Your task to perform on an android device: turn off location history Image 0: 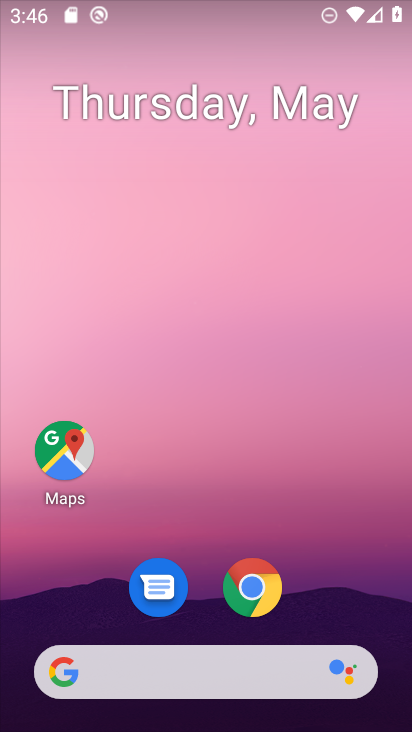
Step 0: drag from (366, 610) to (343, 265)
Your task to perform on an android device: turn off location history Image 1: 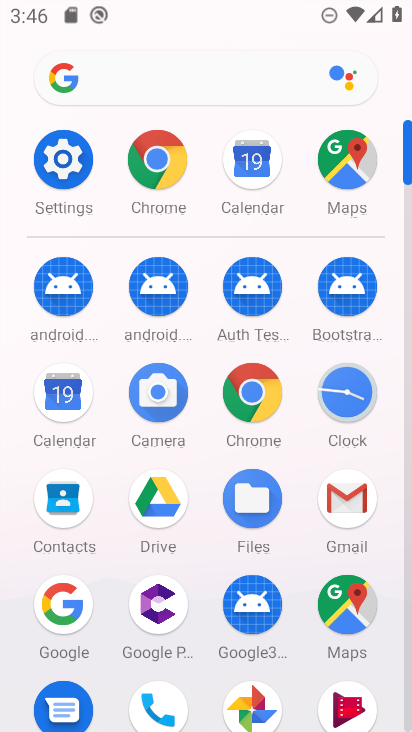
Step 1: click (77, 192)
Your task to perform on an android device: turn off location history Image 2: 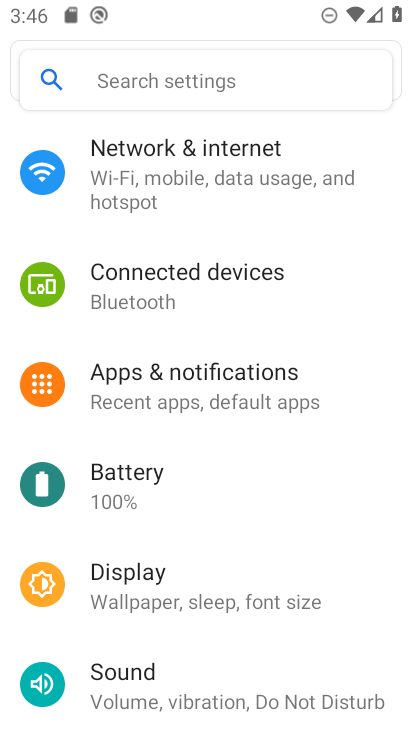
Step 2: drag from (345, 364) to (347, 472)
Your task to perform on an android device: turn off location history Image 3: 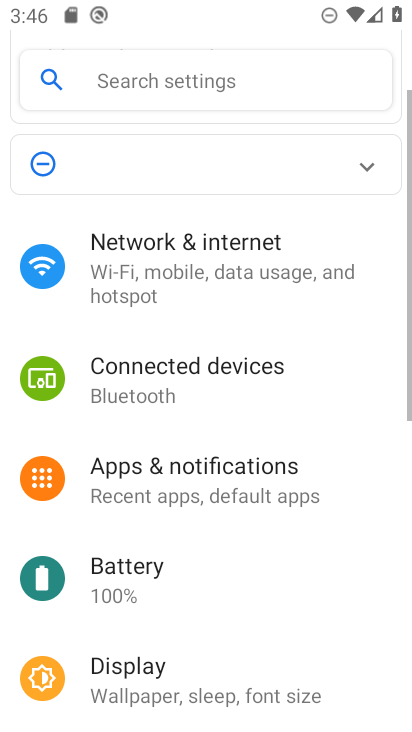
Step 3: drag from (362, 537) to (363, 441)
Your task to perform on an android device: turn off location history Image 4: 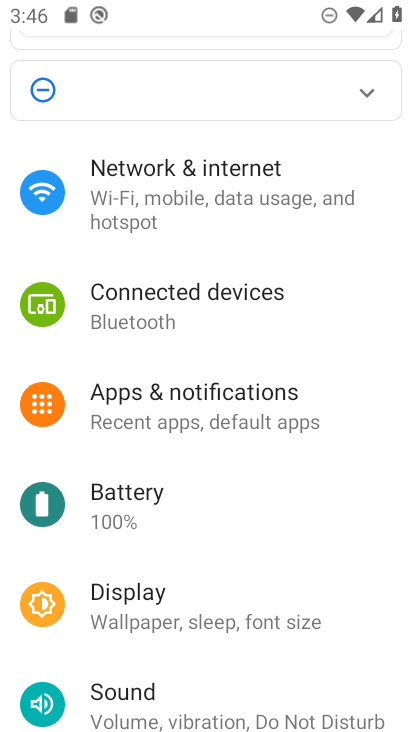
Step 4: drag from (362, 561) to (363, 483)
Your task to perform on an android device: turn off location history Image 5: 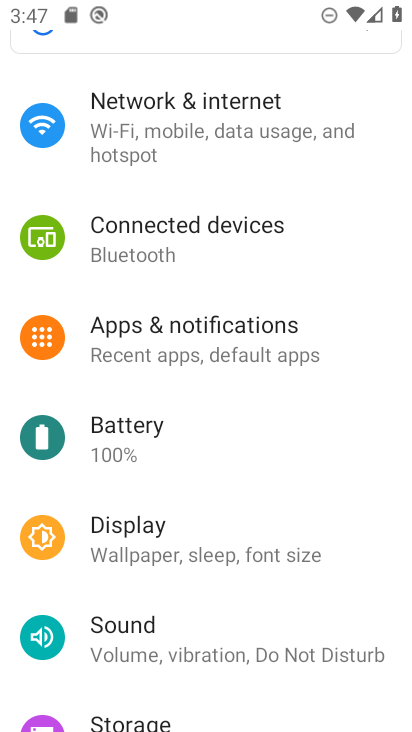
Step 5: drag from (364, 606) to (368, 517)
Your task to perform on an android device: turn off location history Image 6: 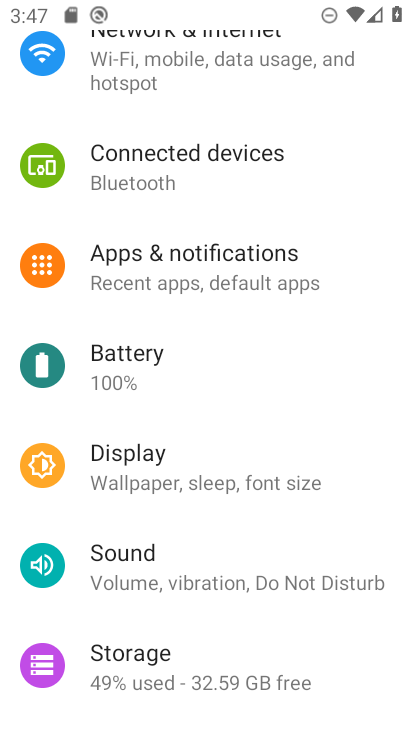
Step 6: drag from (350, 627) to (345, 523)
Your task to perform on an android device: turn off location history Image 7: 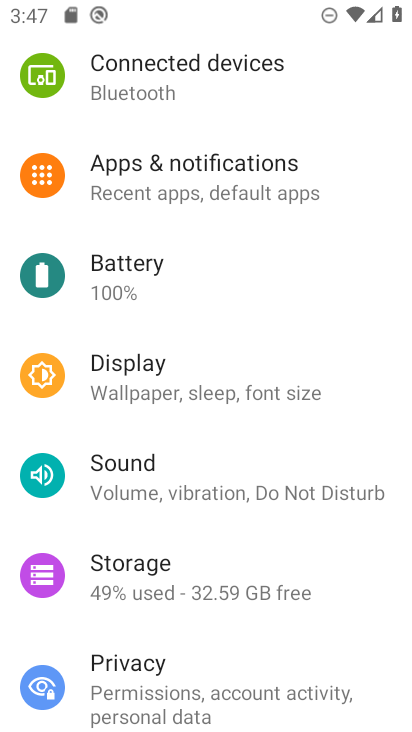
Step 7: drag from (367, 650) to (347, 548)
Your task to perform on an android device: turn off location history Image 8: 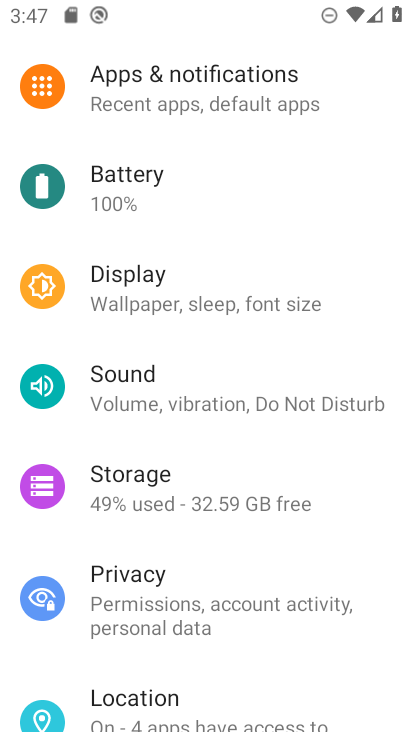
Step 8: drag from (360, 657) to (349, 549)
Your task to perform on an android device: turn off location history Image 9: 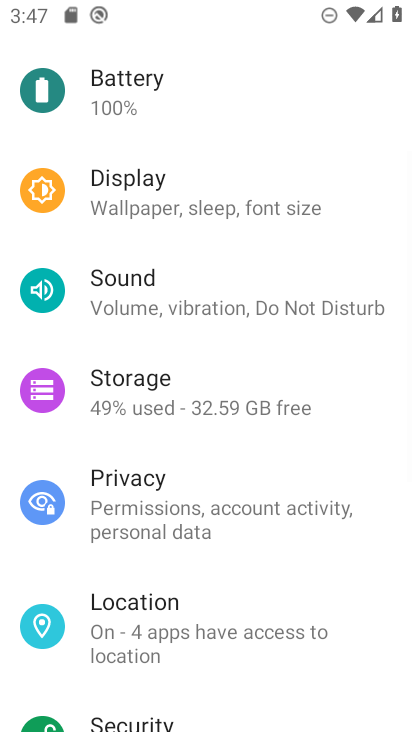
Step 9: click (329, 629)
Your task to perform on an android device: turn off location history Image 10: 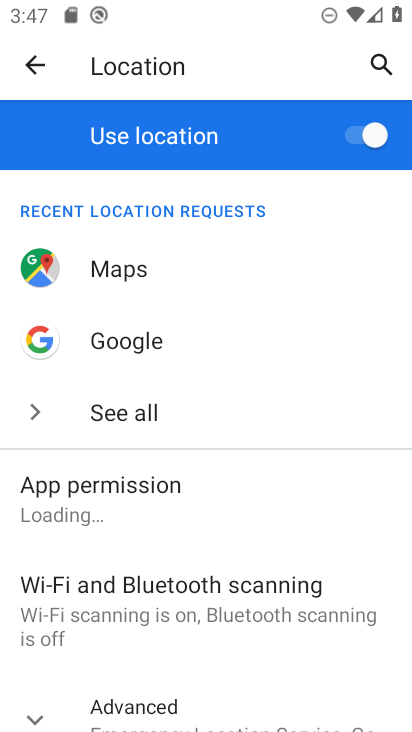
Step 10: drag from (383, 663) to (348, 526)
Your task to perform on an android device: turn off location history Image 11: 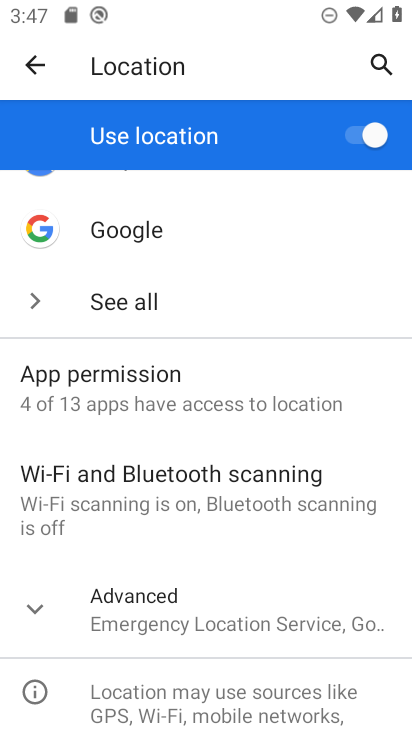
Step 11: click (338, 629)
Your task to perform on an android device: turn off location history Image 12: 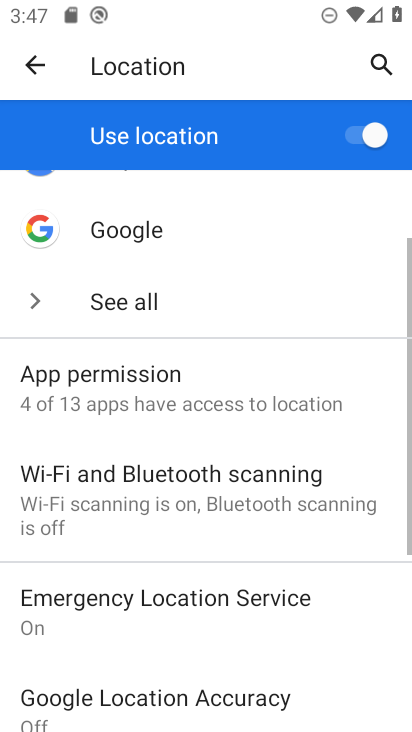
Step 12: drag from (336, 654) to (335, 494)
Your task to perform on an android device: turn off location history Image 13: 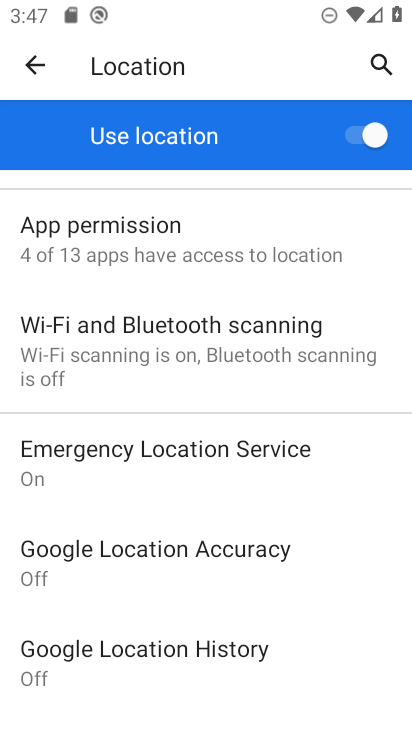
Step 13: drag from (353, 630) to (344, 514)
Your task to perform on an android device: turn off location history Image 14: 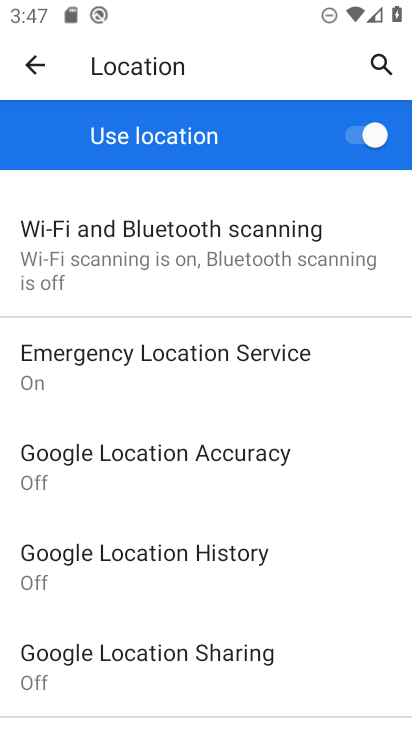
Step 14: click (273, 558)
Your task to perform on an android device: turn off location history Image 15: 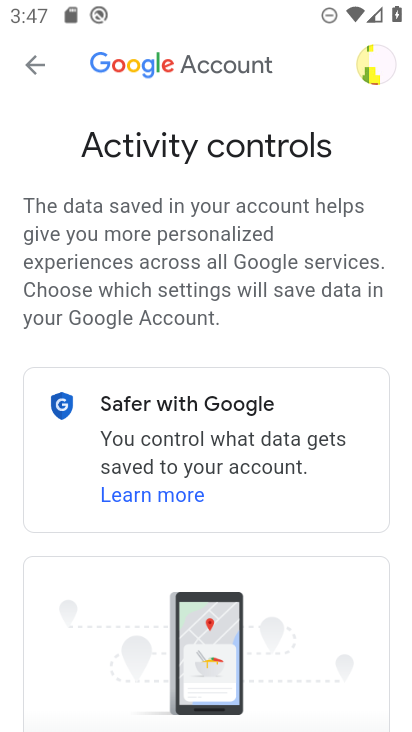
Step 15: drag from (304, 572) to (288, 435)
Your task to perform on an android device: turn off location history Image 16: 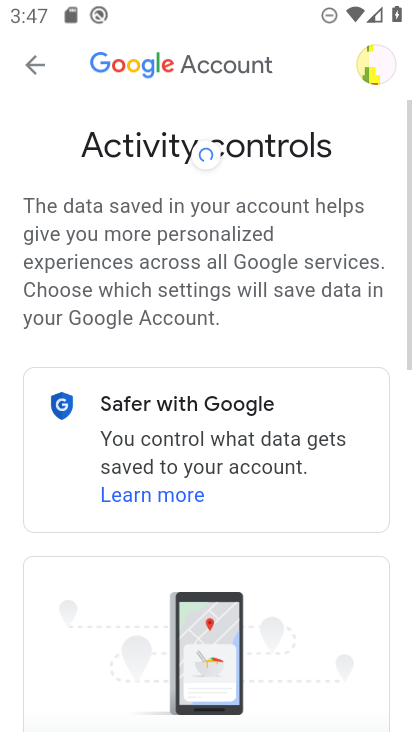
Step 16: drag from (302, 597) to (314, 444)
Your task to perform on an android device: turn off location history Image 17: 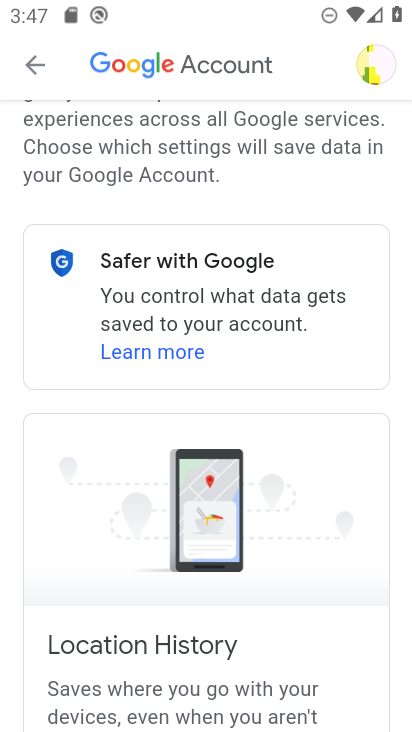
Step 17: drag from (320, 638) to (323, 489)
Your task to perform on an android device: turn off location history Image 18: 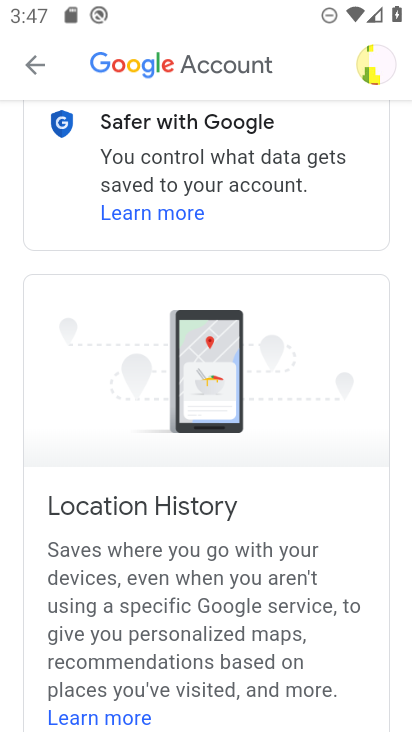
Step 18: drag from (317, 644) to (298, 476)
Your task to perform on an android device: turn off location history Image 19: 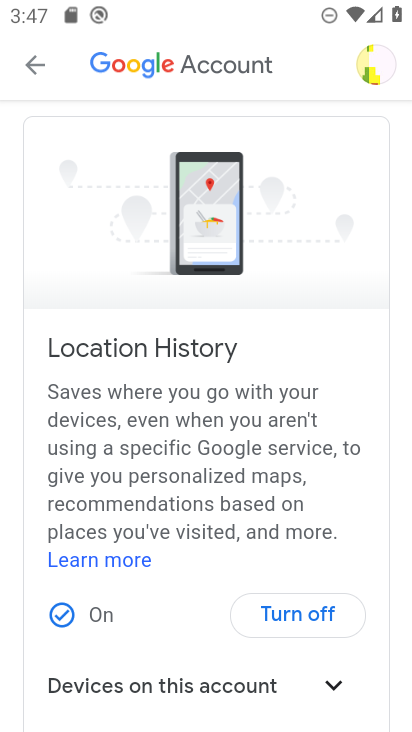
Step 19: click (301, 614)
Your task to perform on an android device: turn off location history Image 20: 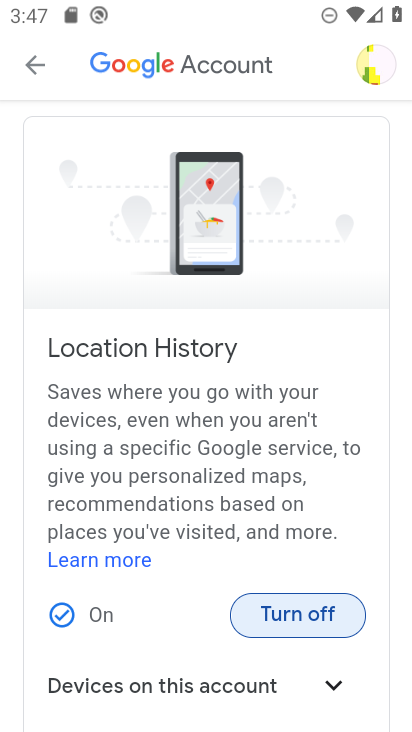
Step 20: click (312, 613)
Your task to perform on an android device: turn off location history Image 21: 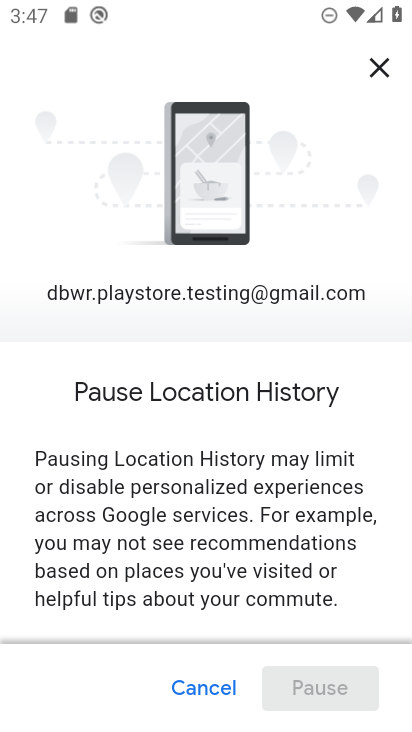
Step 21: drag from (240, 552) to (230, 405)
Your task to perform on an android device: turn off location history Image 22: 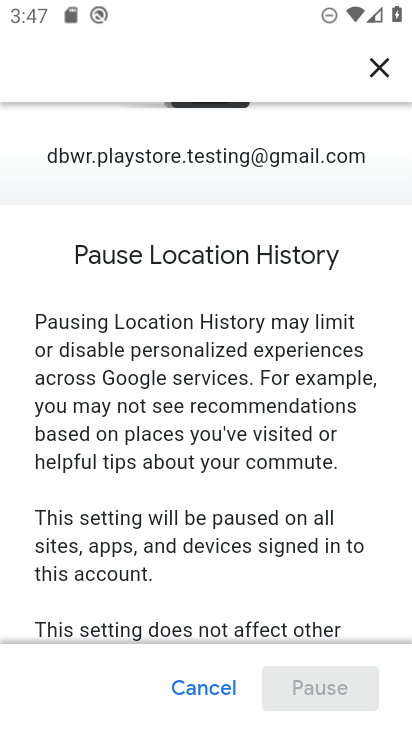
Step 22: drag from (248, 549) to (246, 407)
Your task to perform on an android device: turn off location history Image 23: 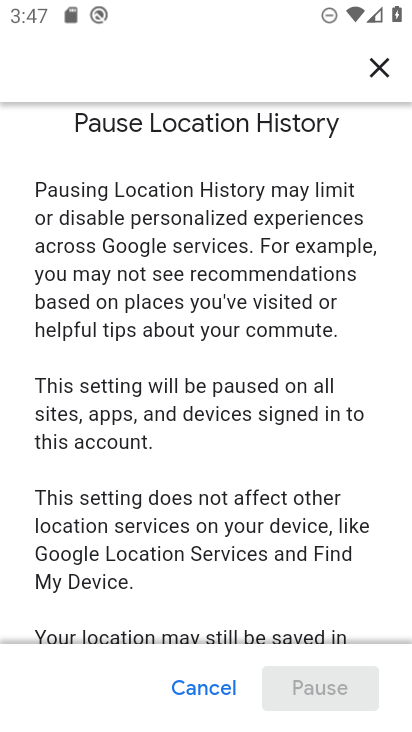
Step 23: drag from (261, 567) to (264, 444)
Your task to perform on an android device: turn off location history Image 24: 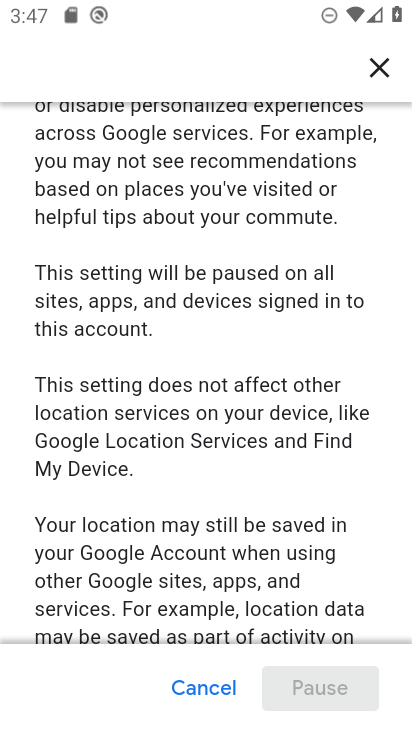
Step 24: drag from (269, 603) to (265, 436)
Your task to perform on an android device: turn off location history Image 25: 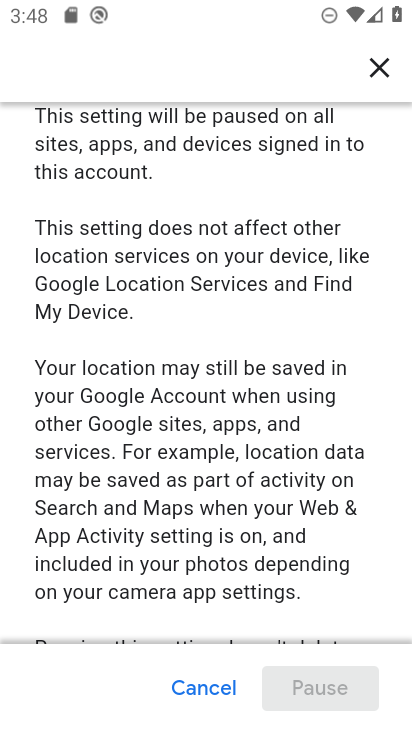
Step 25: drag from (273, 583) to (274, 440)
Your task to perform on an android device: turn off location history Image 26: 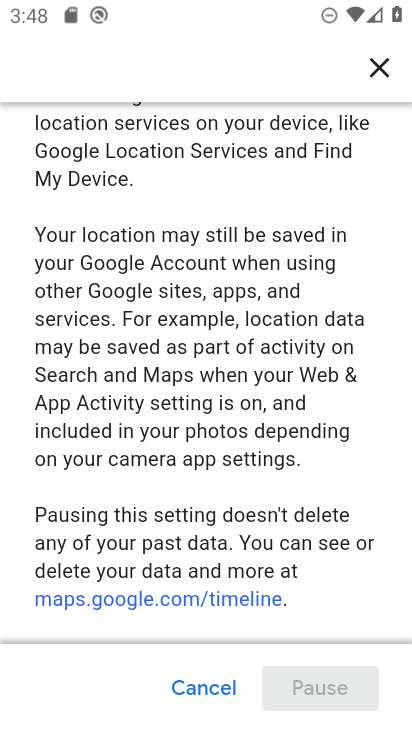
Step 26: drag from (280, 614) to (286, 462)
Your task to perform on an android device: turn off location history Image 27: 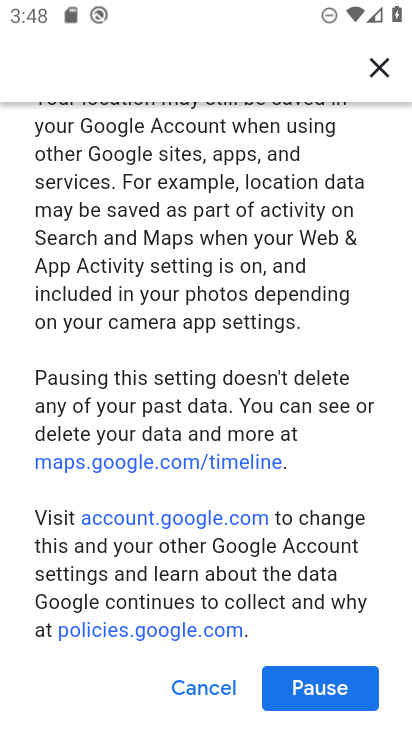
Step 27: click (313, 683)
Your task to perform on an android device: turn off location history Image 28: 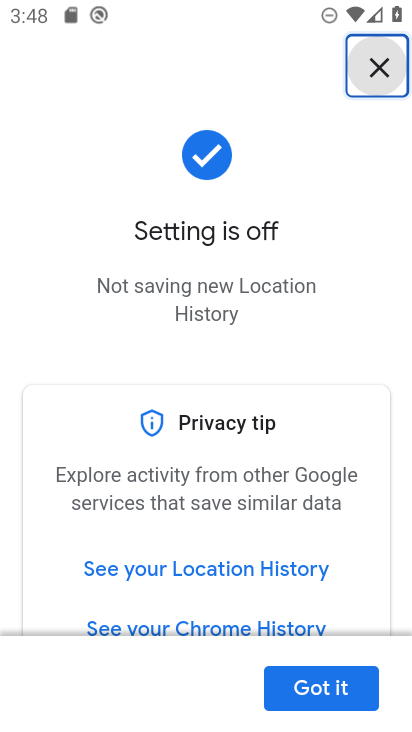
Step 28: task complete